Your task to perform on an android device: turn off wifi Image 0: 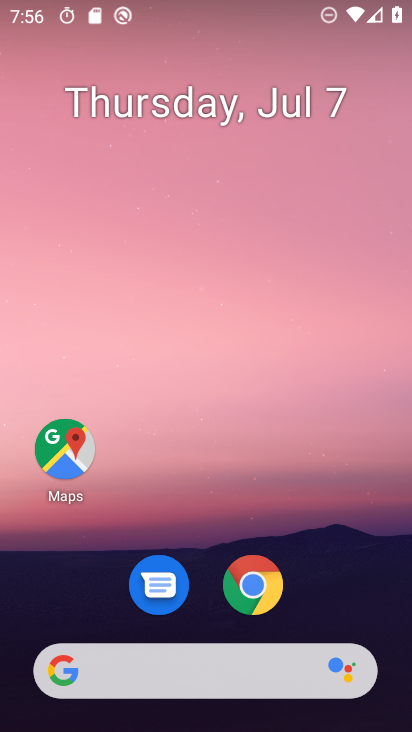
Step 0: drag from (238, 675) to (342, 158)
Your task to perform on an android device: turn off wifi Image 1: 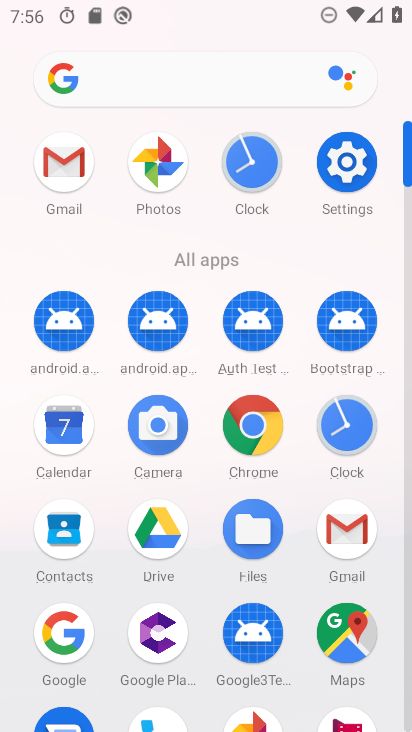
Step 1: click (342, 156)
Your task to perform on an android device: turn off wifi Image 2: 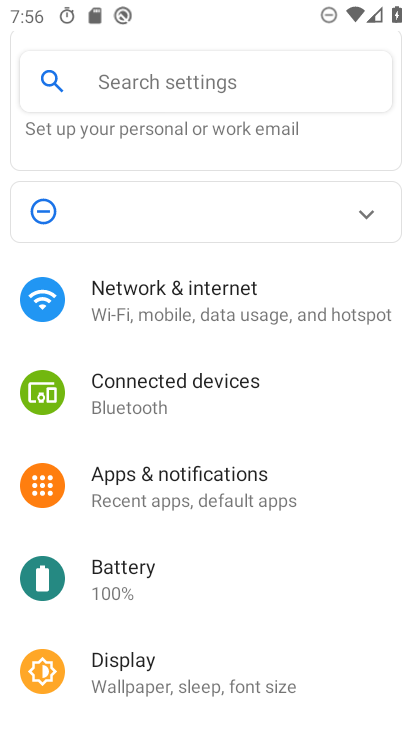
Step 2: click (203, 308)
Your task to perform on an android device: turn off wifi Image 3: 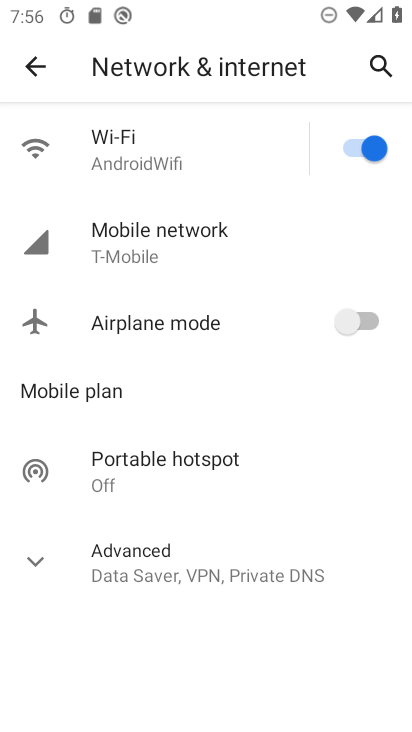
Step 3: click (352, 147)
Your task to perform on an android device: turn off wifi Image 4: 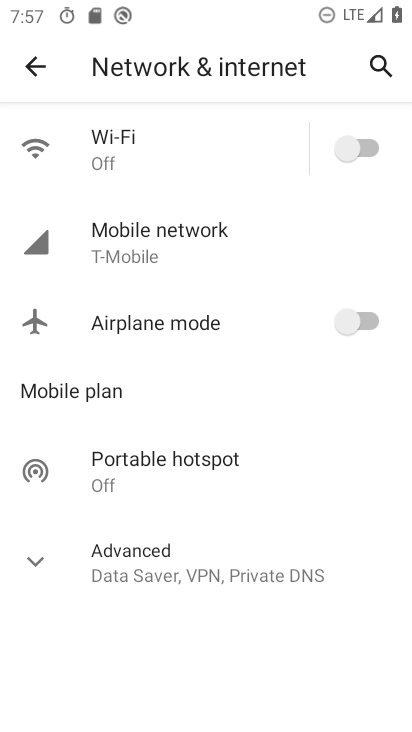
Step 4: task complete